Your task to perform on an android device: Open internet settings Image 0: 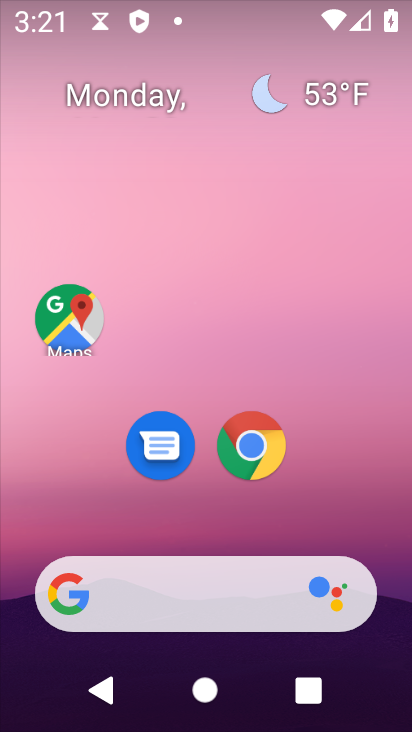
Step 0: drag from (208, 517) to (266, 39)
Your task to perform on an android device: Open internet settings Image 1: 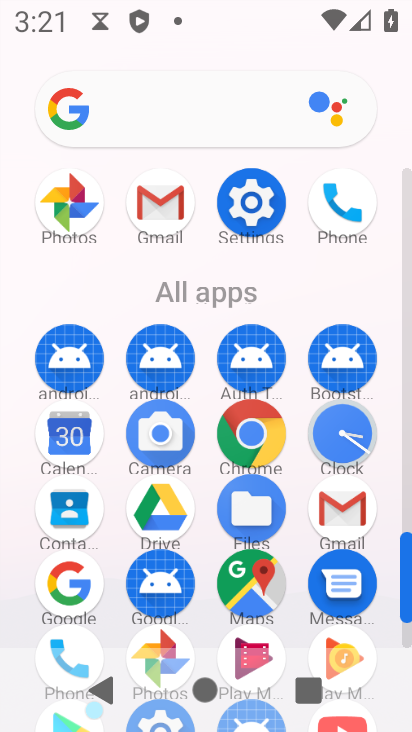
Step 1: click (267, 233)
Your task to perform on an android device: Open internet settings Image 2: 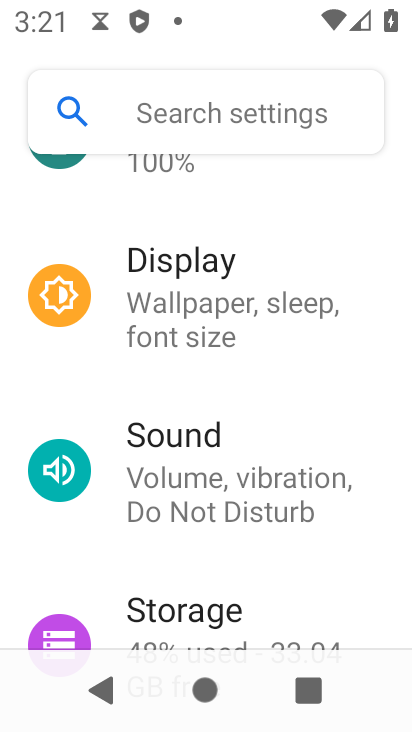
Step 2: drag from (250, 246) to (172, 726)
Your task to perform on an android device: Open internet settings Image 3: 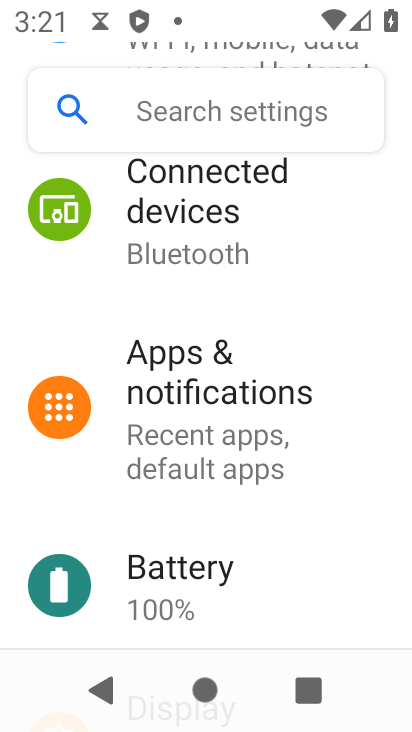
Step 3: drag from (223, 529) to (188, 727)
Your task to perform on an android device: Open internet settings Image 4: 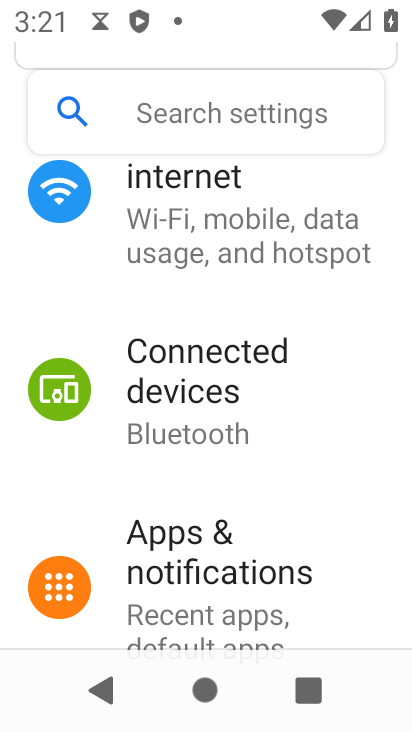
Step 4: drag from (244, 301) to (236, 534)
Your task to perform on an android device: Open internet settings Image 5: 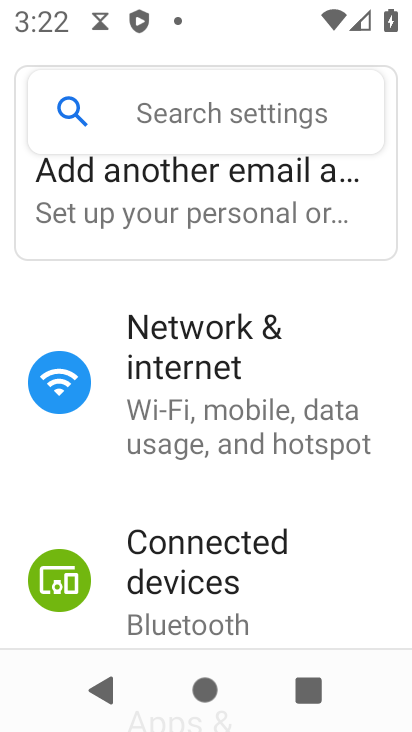
Step 5: click (229, 433)
Your task to perform on an android device: Open internet settings Image 6: 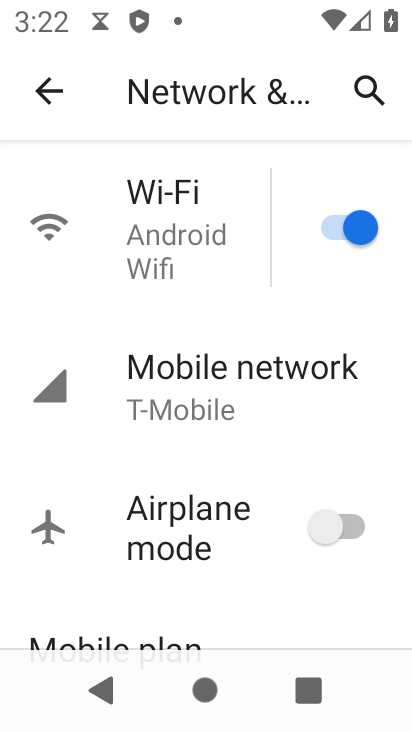
Step 6: task complete